Your task to perform on an android device: Search for Italian restaurants on Maps Image 0: 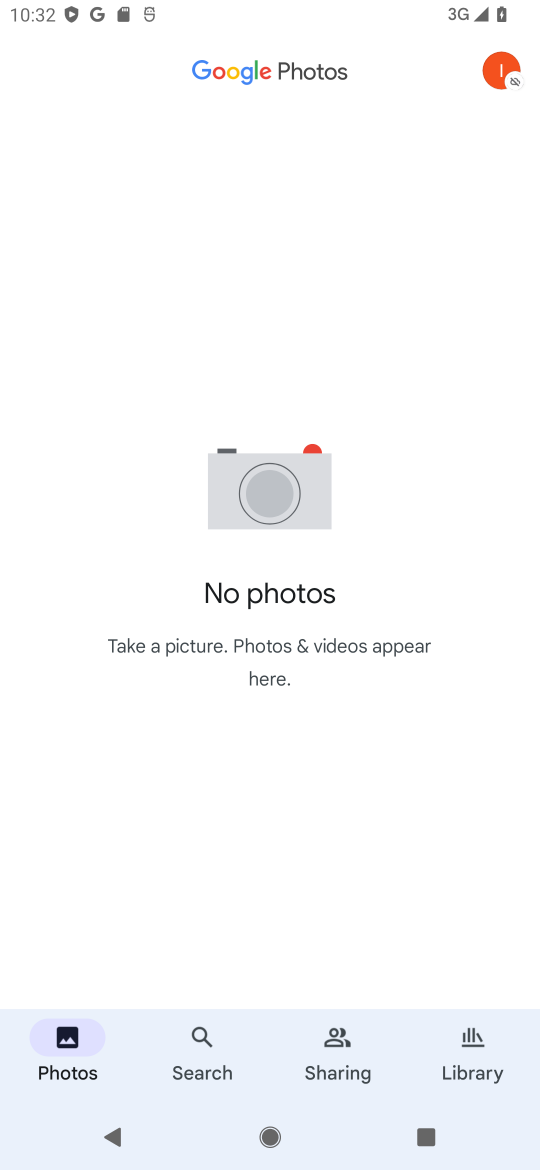
Step 0: press home button
Your task to perform on an android device: Search for Italian restaurants on Maps Image 1: 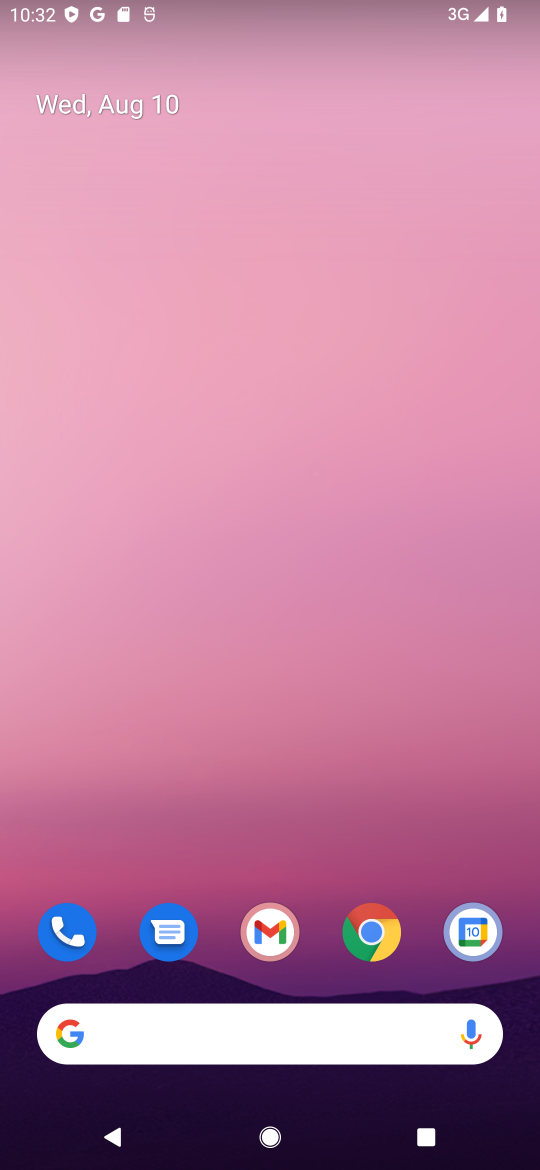
Step 1: drag from (306, 851) to (306, 130)
Your task to perform on an android device: Search for Italian restaurants on Maps Image 2: 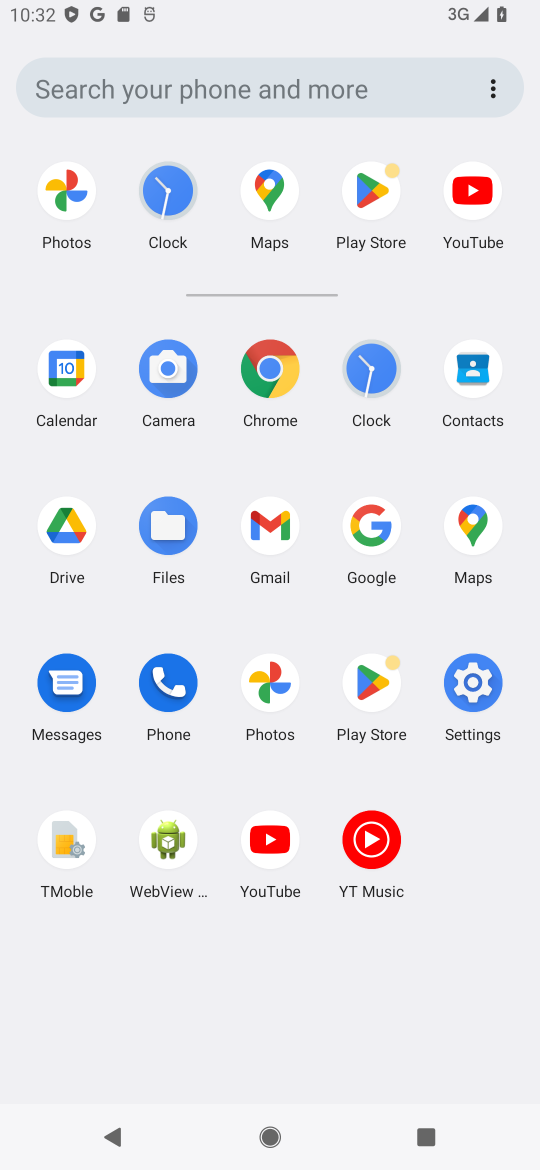
Step 2: click (466, 531)
Your task to perform on an android device: Search for Italian restaurants on Maps Image 3: 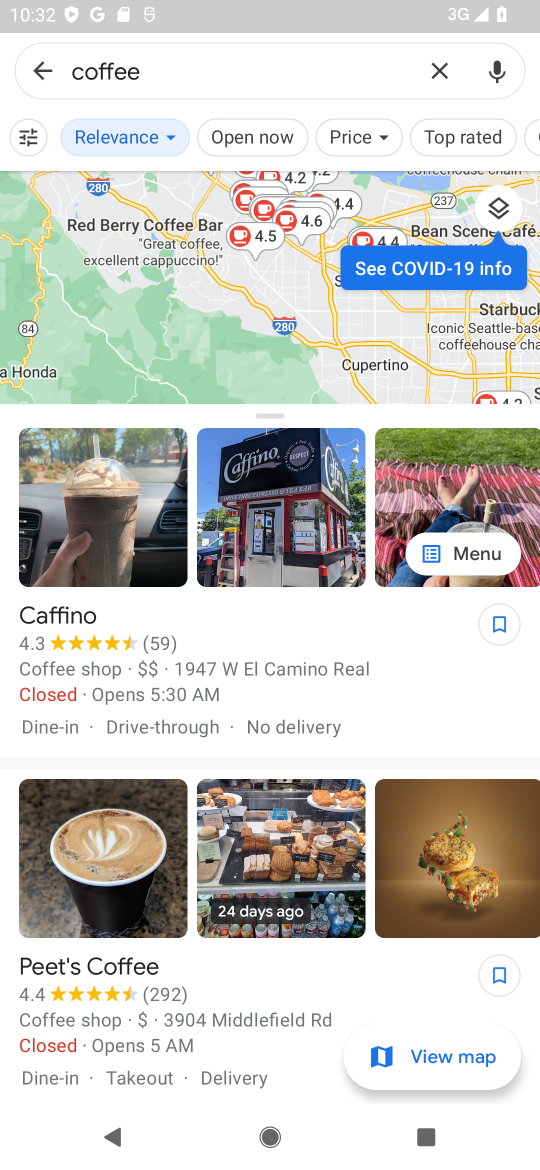
Step 3: click (438, 71)
Your task to perform on an android device: Search for Italian restaurants on Maps Image 4: 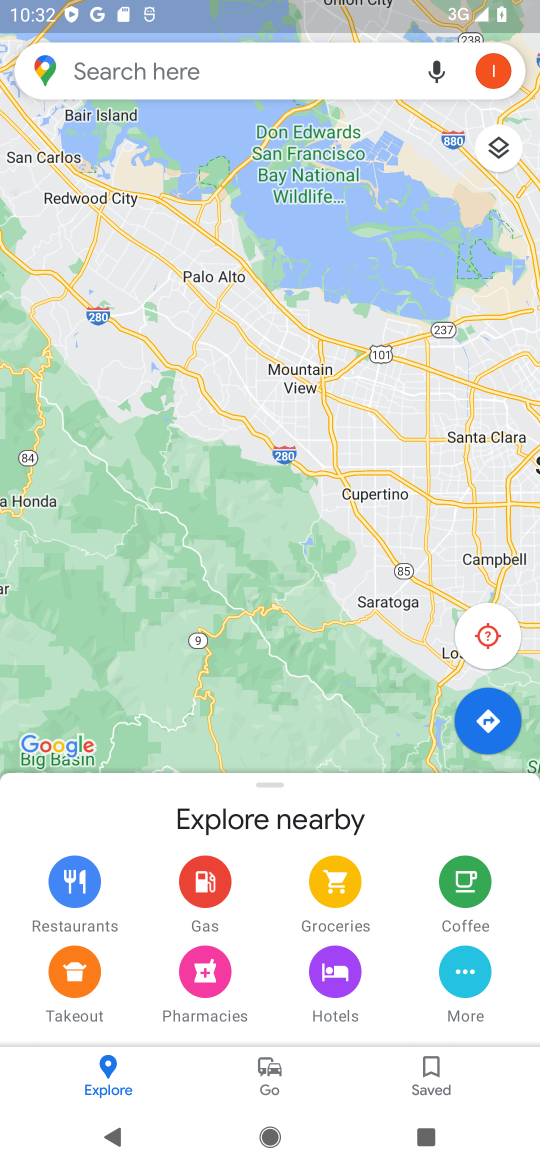
Step 4: click (275, 81)
Your task to perform on an android device: Search for Italian restaurants on Maps Image 5: 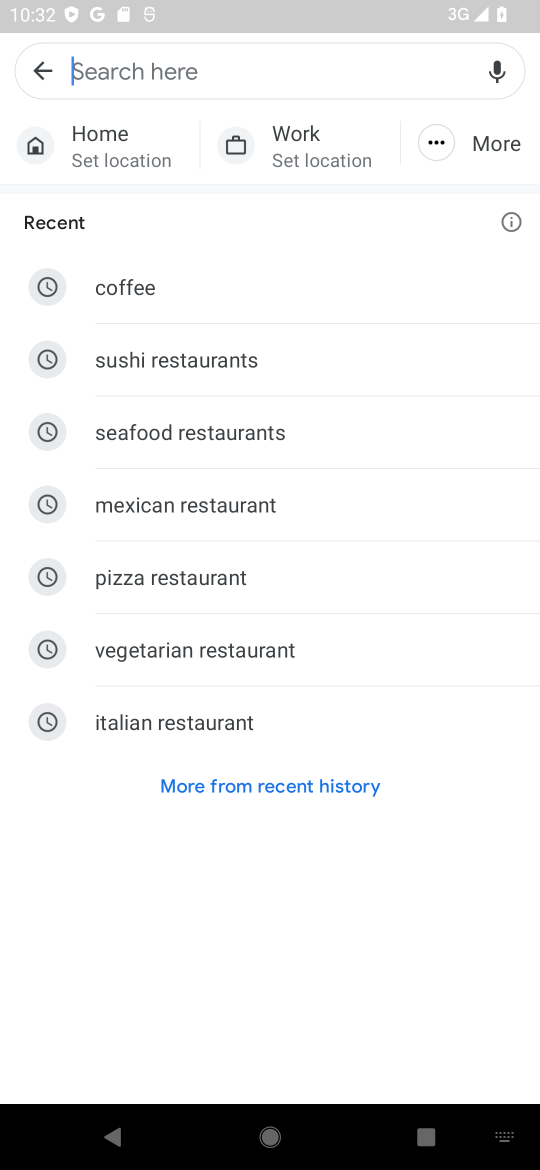
Step 5: type "italian"
Your task to perform on an android device: Search for Italian restaurants on Maps Image 6: 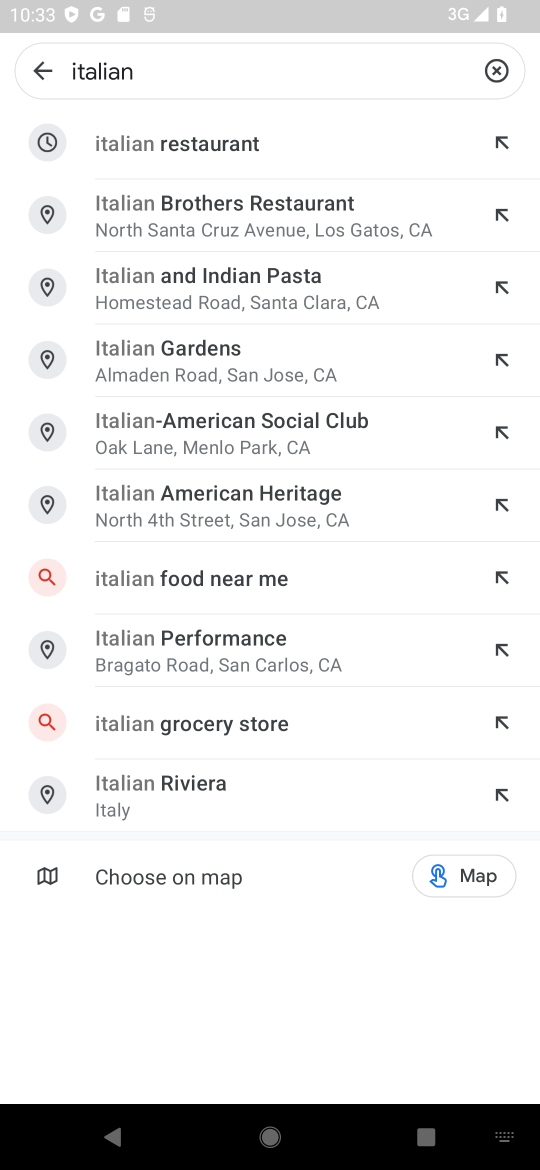
Step 6: click (190, 142)
Your task to perform on an android device: Search for Italian restaurants on Maps Image 7: 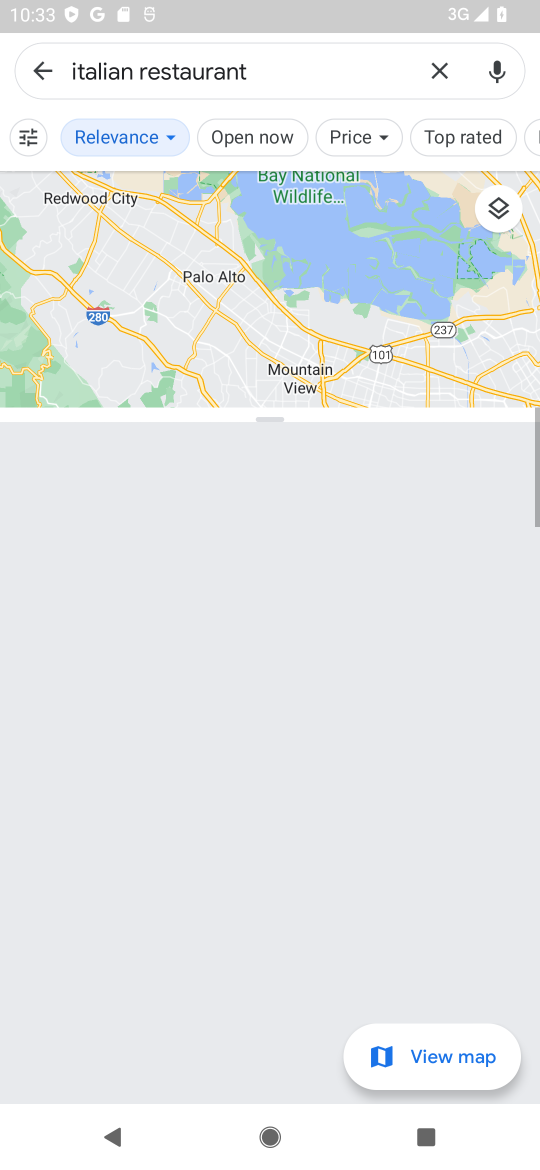
Step 7: click (190, 142)
Your task to perform on an android device: Search for Italian restaurants on Maps Image 8: 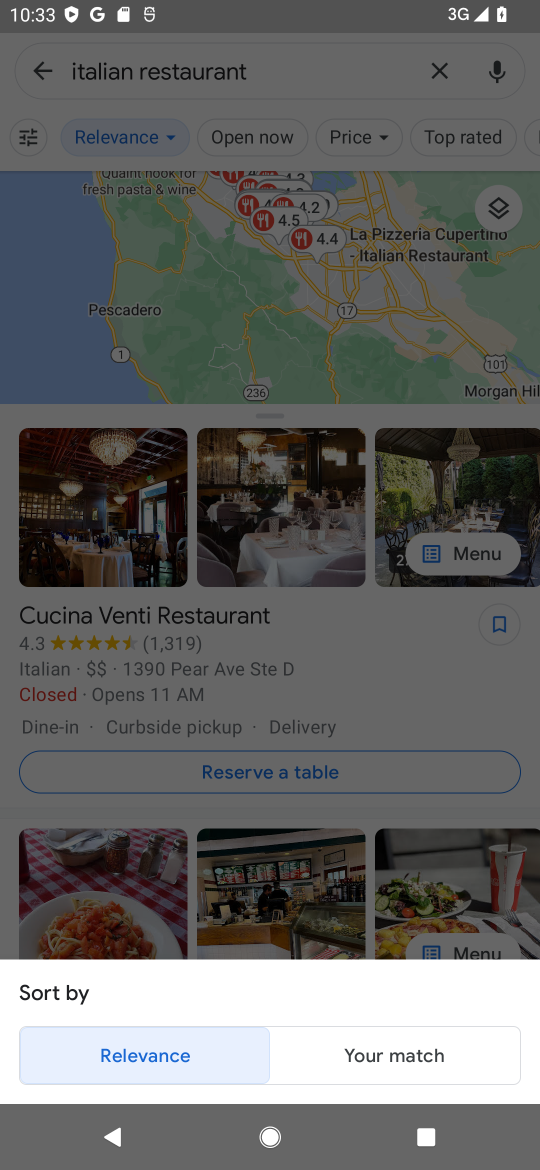
Step 8: task complete